Your task to perform on an android device: open app "Flipkart Online Shopping App" (install if not already installed) and enter user name: "fostered@gmail.com" and password: "negotiated" Image 0: 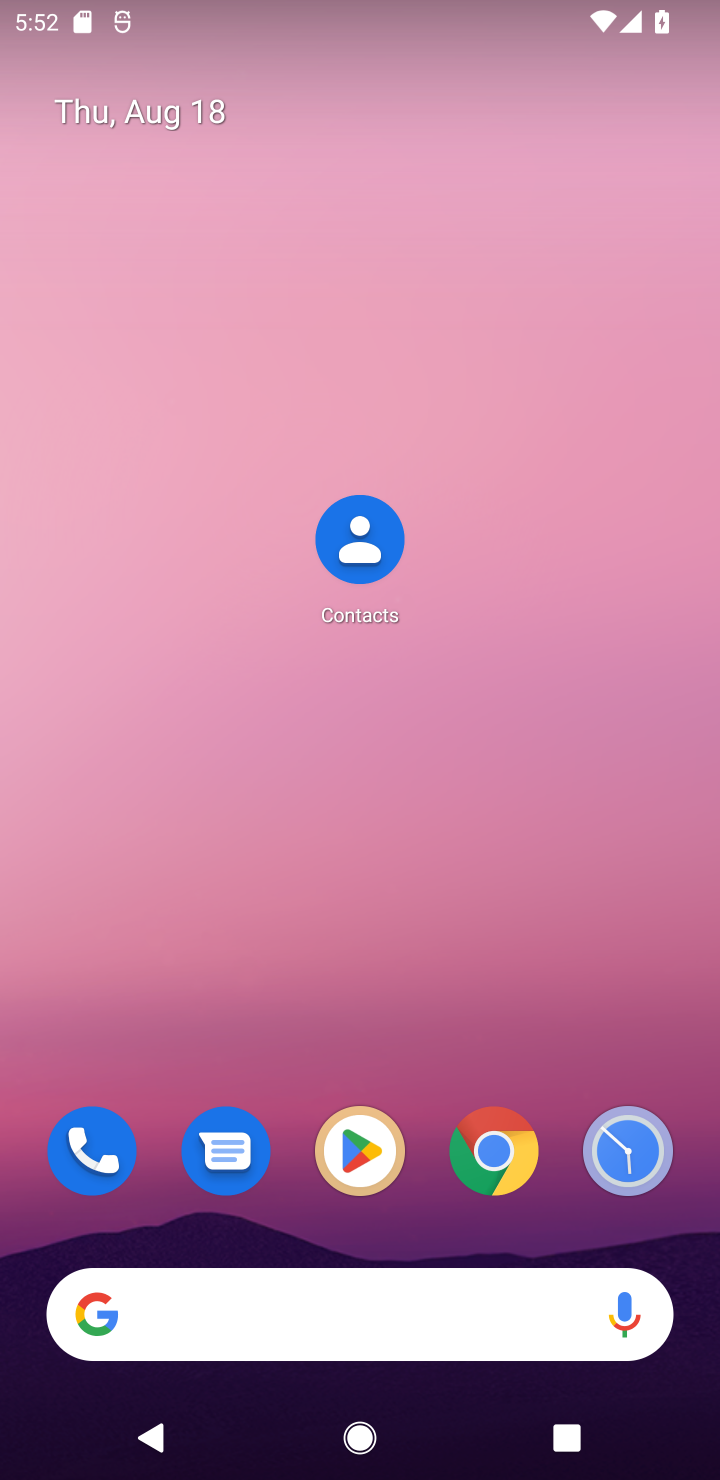
Step 0: click (370, 1158)
Your task to perform on an android device: open app "Flipkart Online Shopping App" (install if not already installed) and enter user name: "fostered@gmail.com" and password: "negotiated" Image 1: 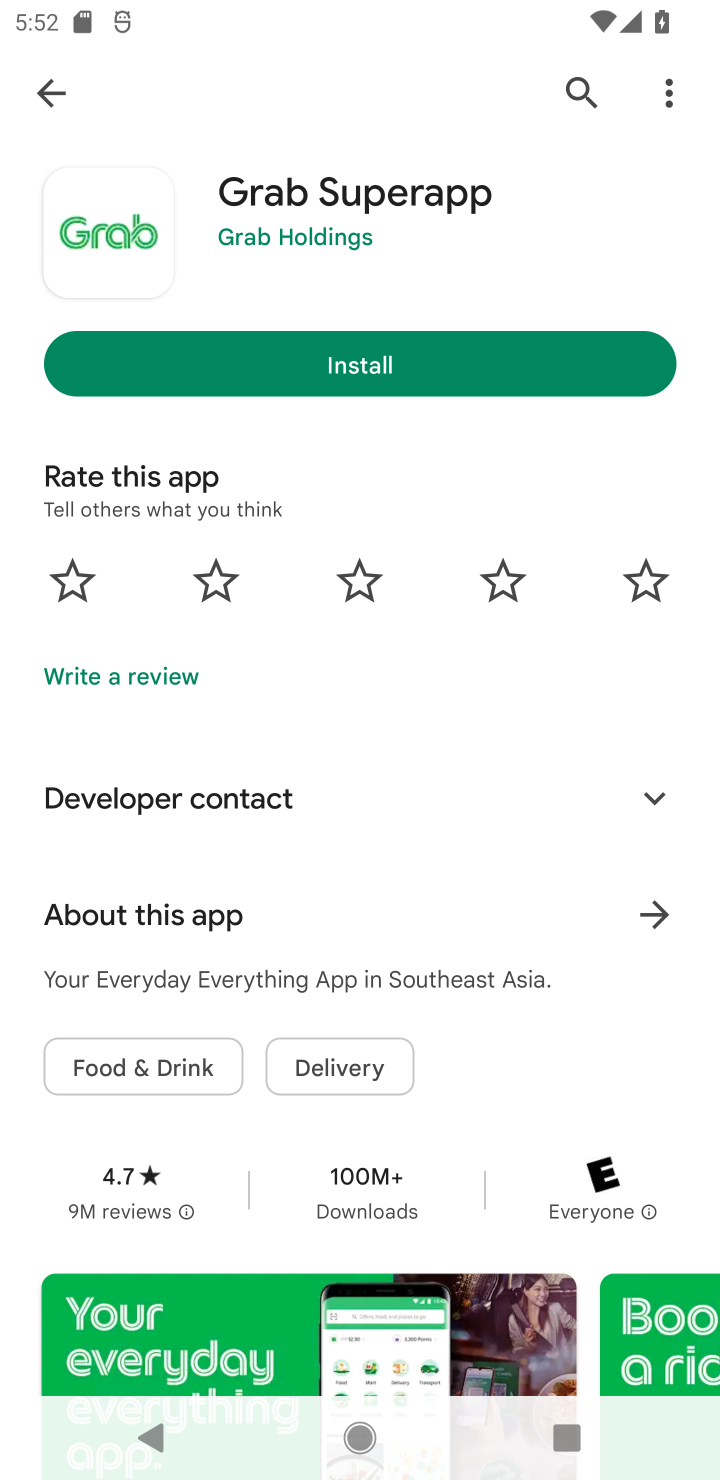
Step 1: click (566, 76)
Your task to perform on an android device: open app "Flipkart Online Shopping App" (install if not already installed) and enter user name: "fostered@gmail.com" and password: "negotiated" Image 2: 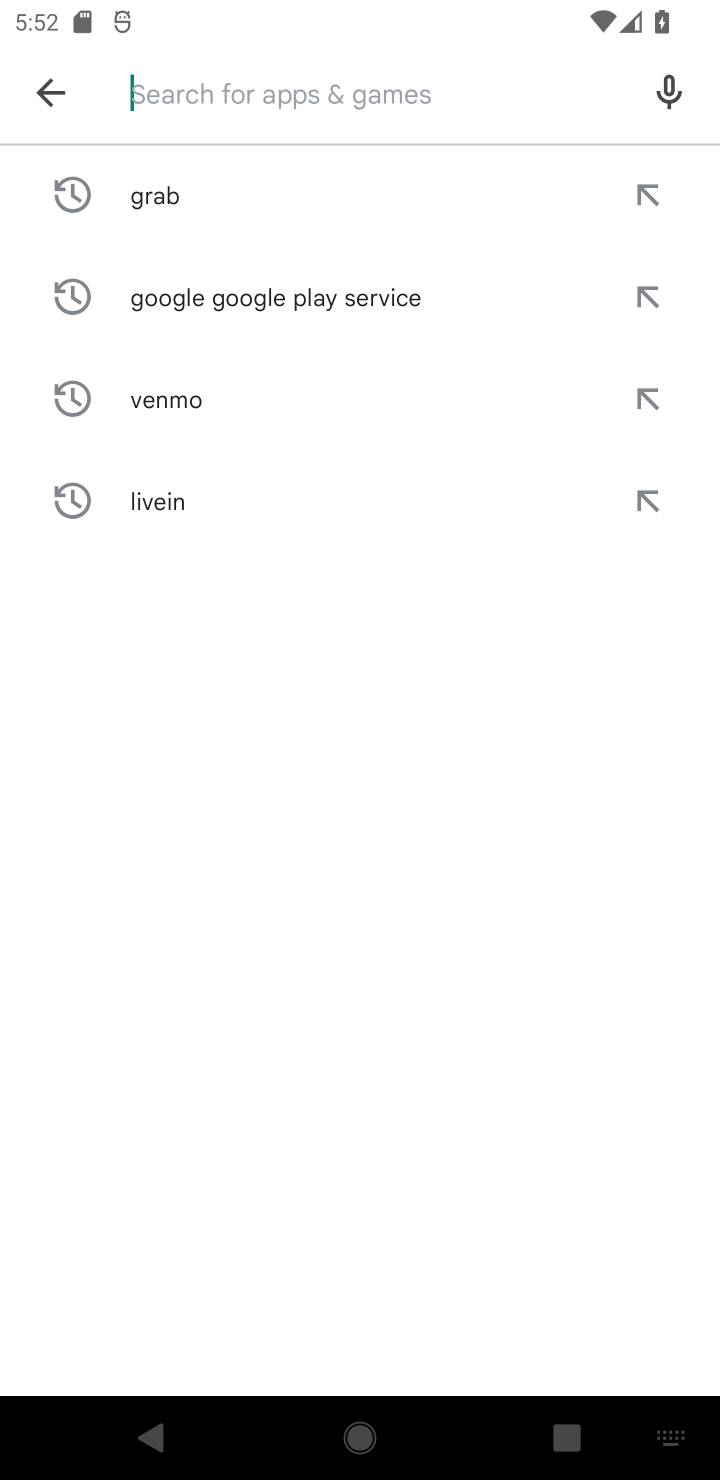
Step 2: type "flipkart"
Your task to perform on an android device: open app "Flipkart Online Shopping App" (install if not already installed) and enter user name: "fostered@gmail.com" and password: "negotiated" Image 3: 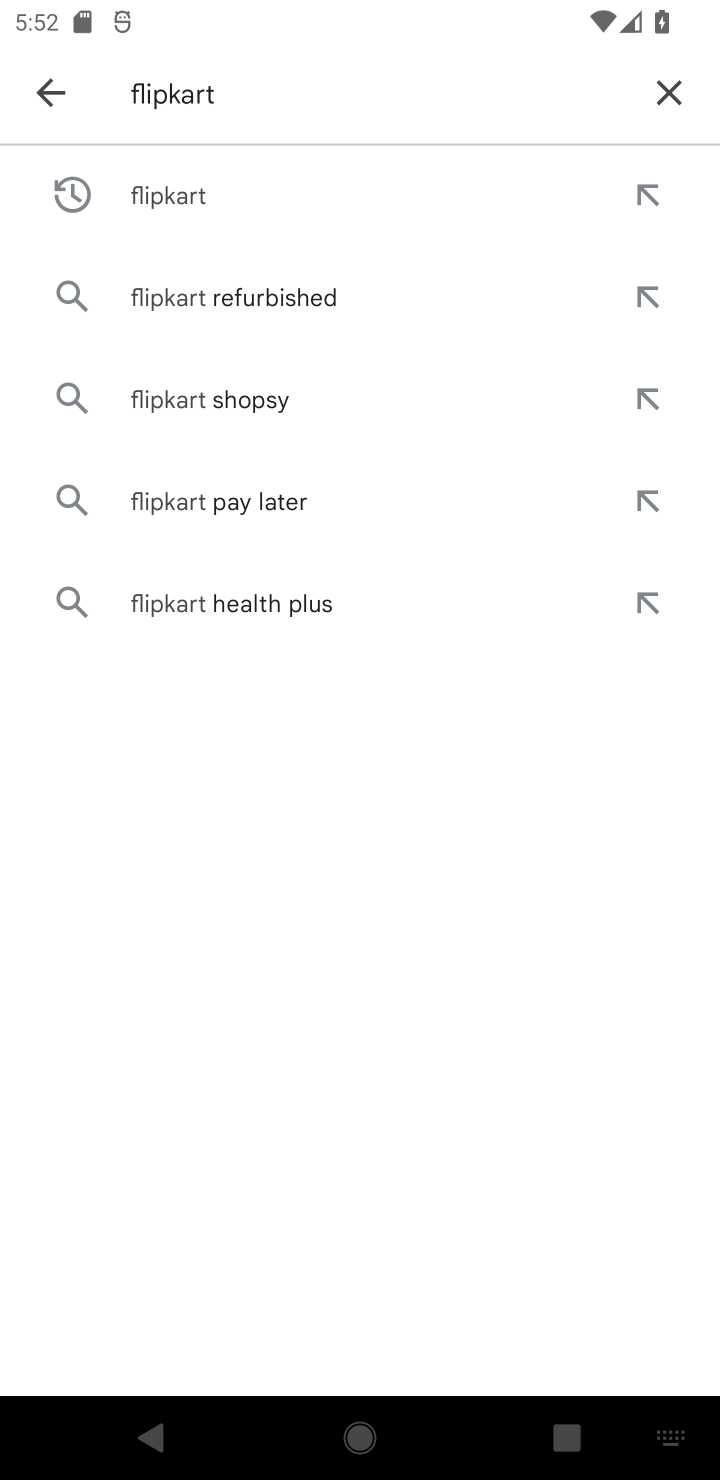
Step 3: click (176, 195)
Your task to perform on an android device: open app "Flipkart Online Shopping App" (install if not already installed) and enter user name: "fostered@gmail.com" and password: "negotiated" Image 4: 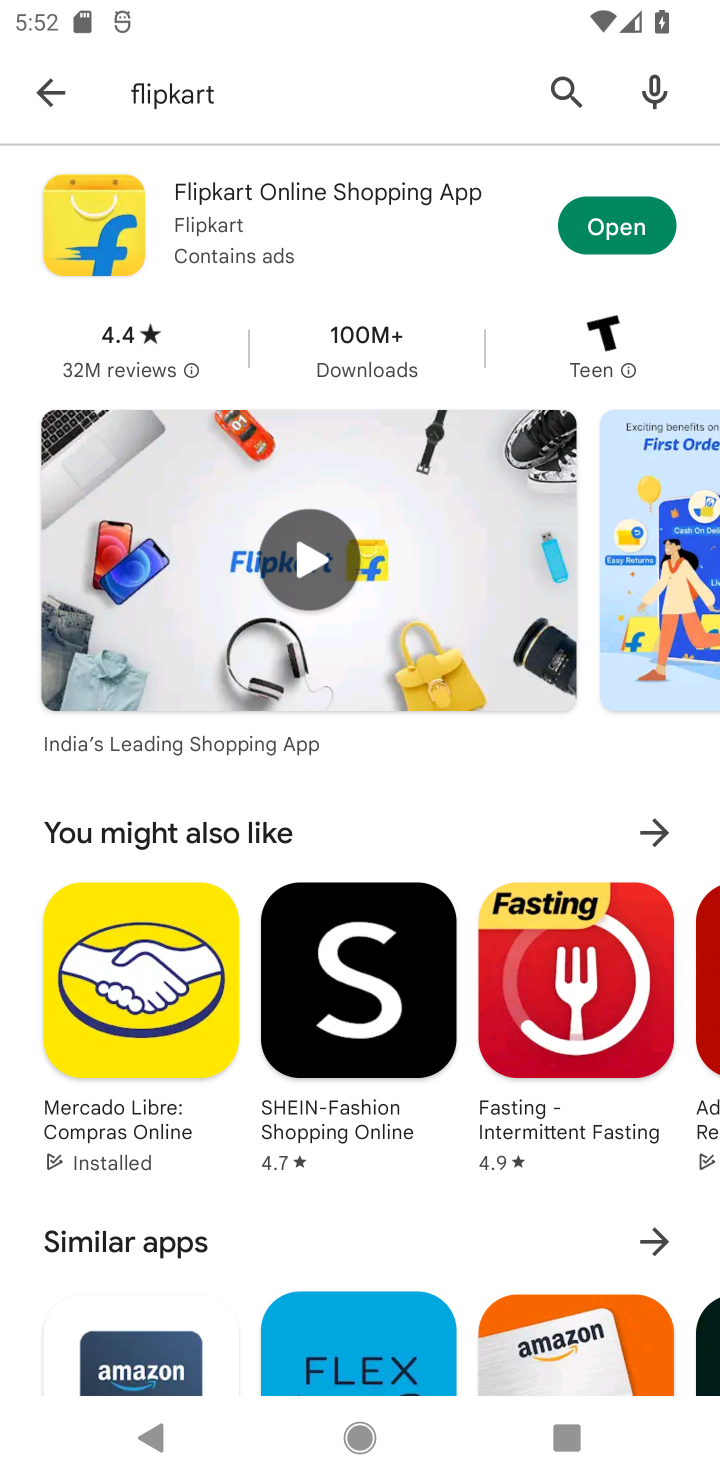
Step 4: click (621, 234)
Your task to perform on an android device: open app "Flipkart Online Shopping App" (install if not already installed) and enter user name: "fostered@gmail.com" and password: "negotiated" Image 5: 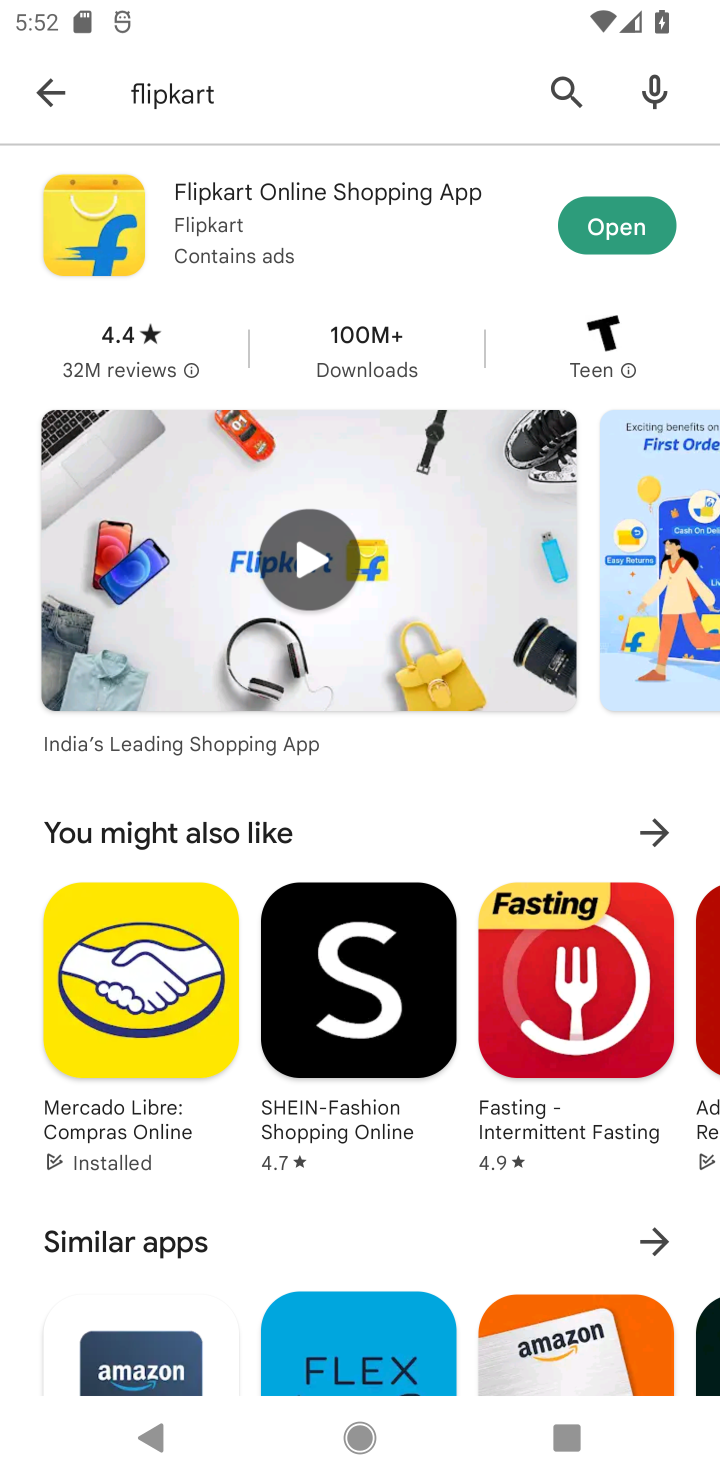
Step 5: task complete